Your task to perform on an android device: Add "macbook pro 13 inch" to the cart on newegg, then select checkout. Image 0: 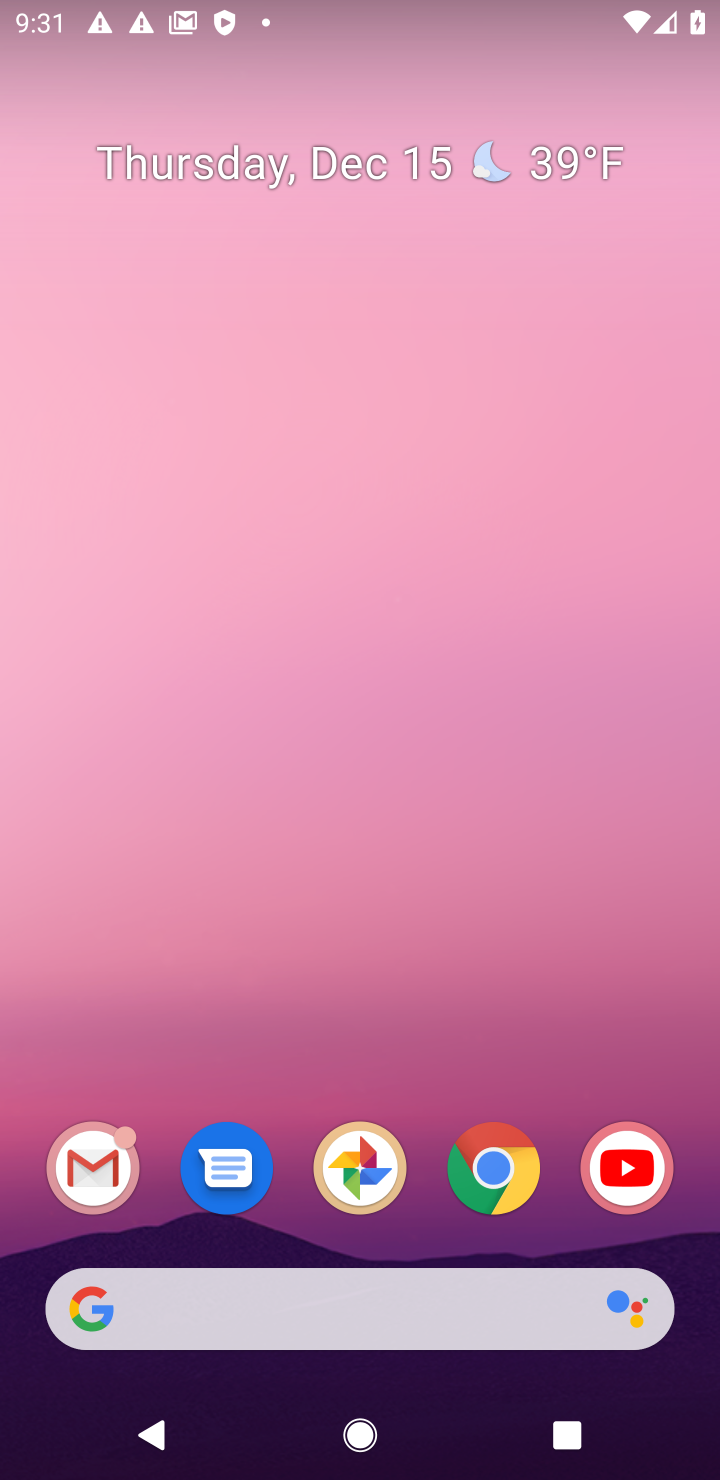
Step 0: click (539, 1166)
Your task to perform on an android device: Add "macbook pro 13 inch" to the cart on newegg, then select checkout. Image 1: 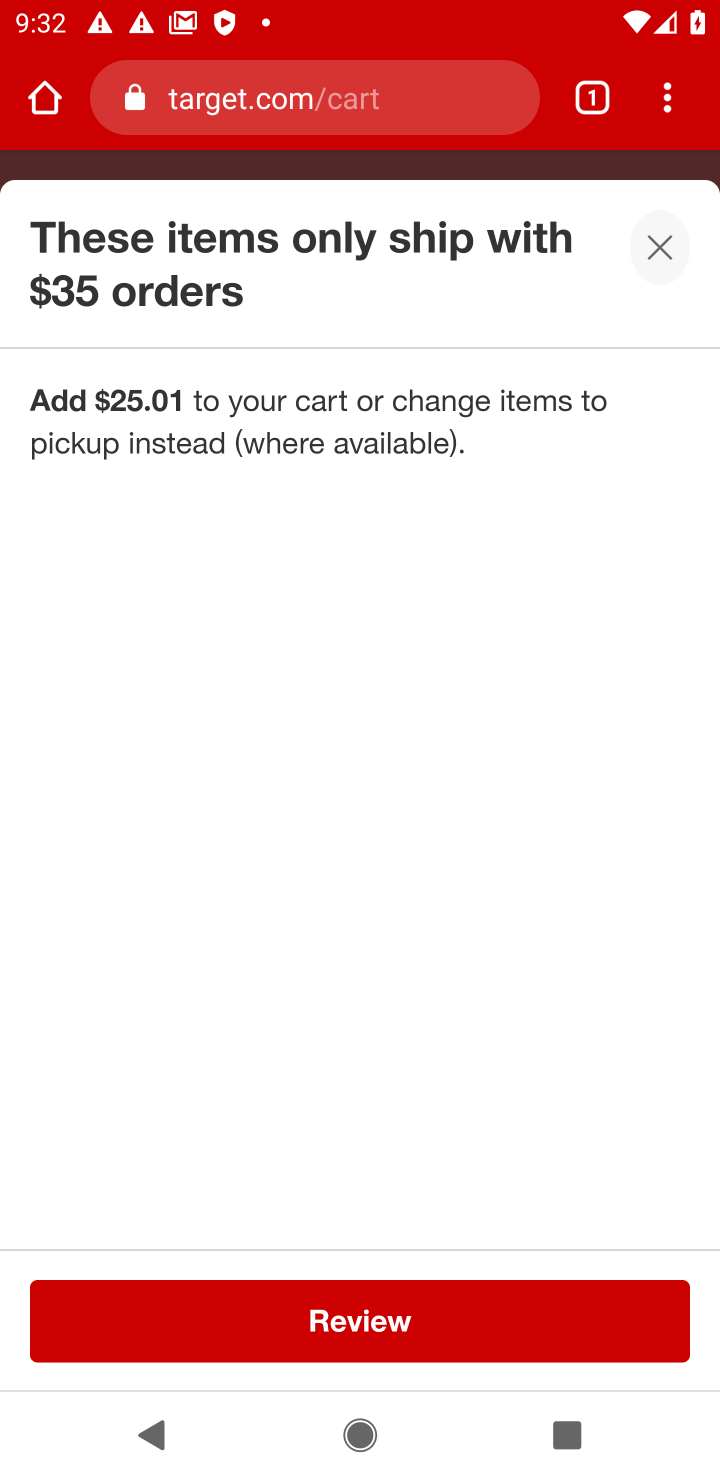
Step 1: click (377, 114)
Your task to perform on an android device: Add "macbook pro 13 inch" to the cart on newegg, then select checkout. Image 2: 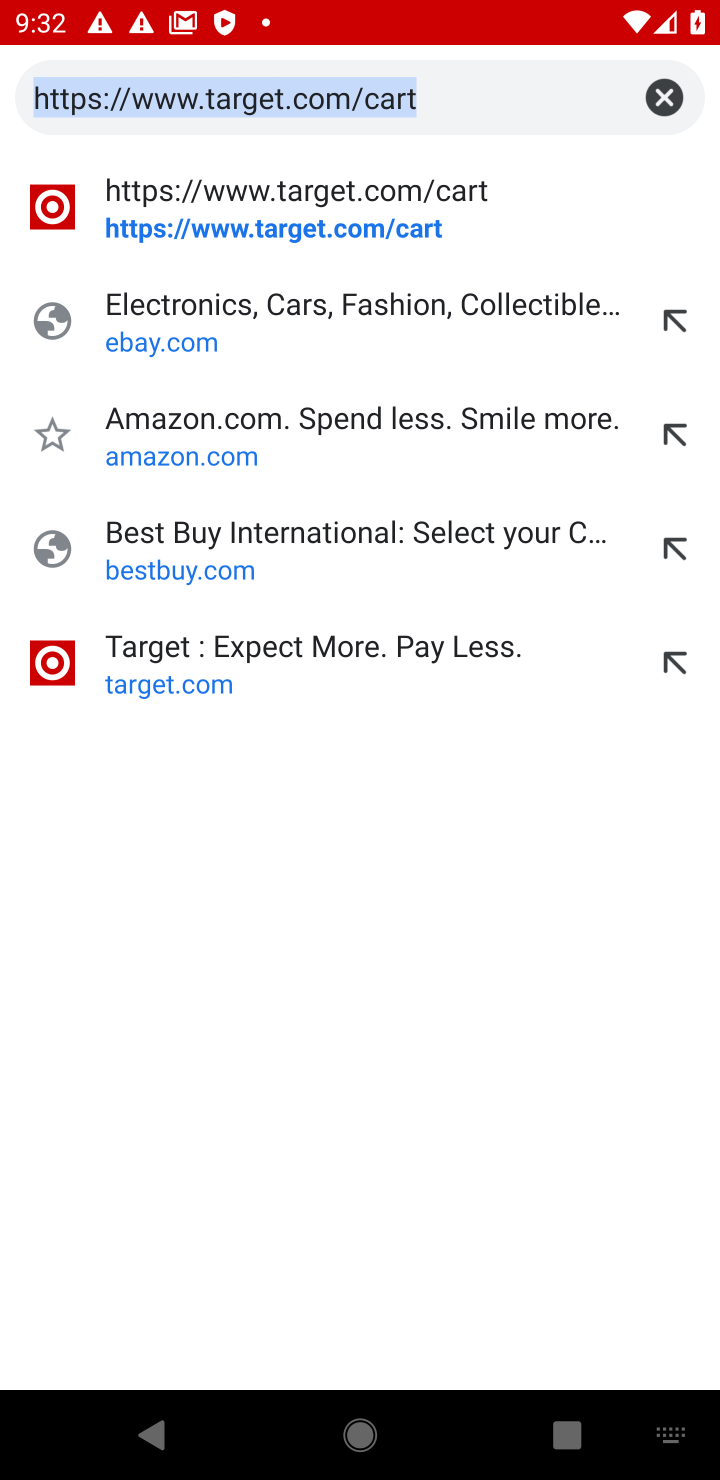
Step 2: click (658, 99)
Your task to perform on an android device: Add "macbook pro 13 inch" to the cart on newegg, then select checkout. Image 3: 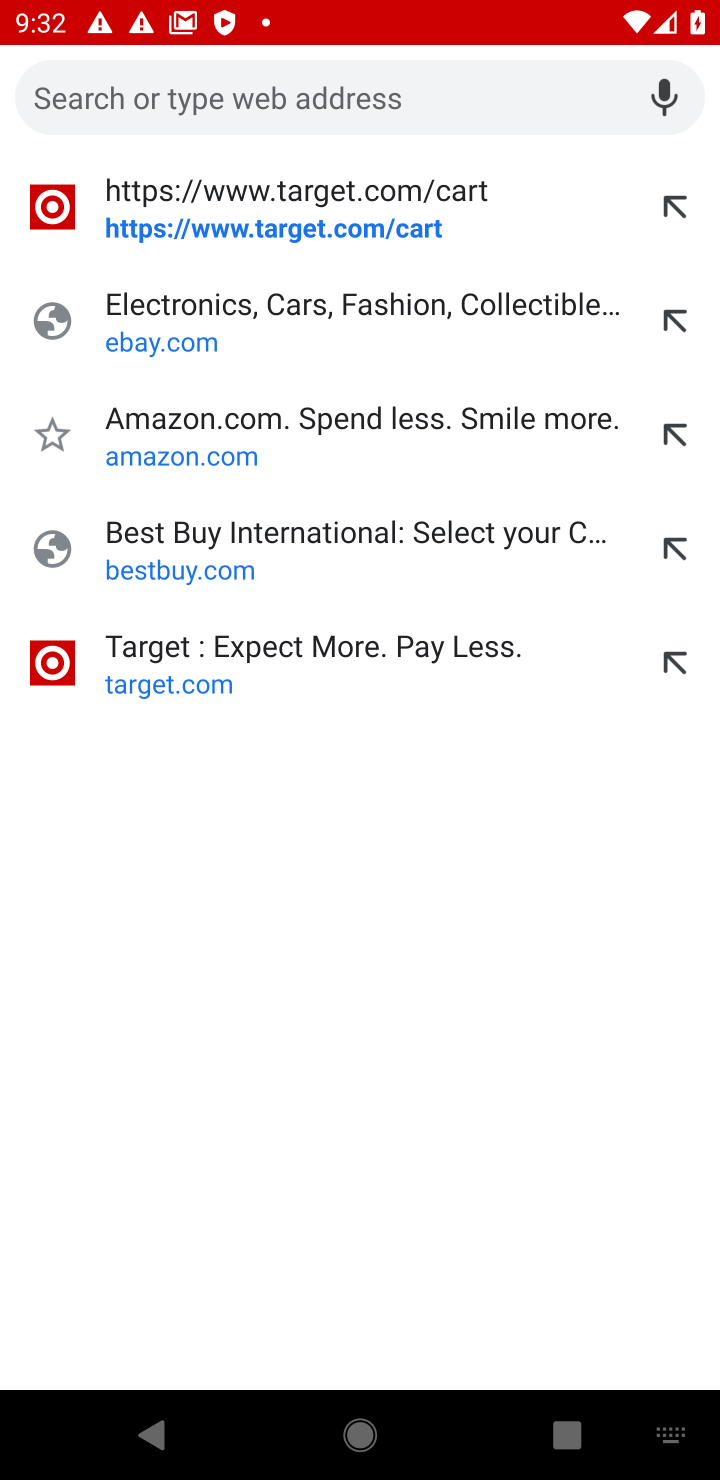
Step 3: type "NEWEGG"
Your task to perform on an android device: Add "macbook pro 13 inch" to the cart on newegg, then select checkout. Image 4: 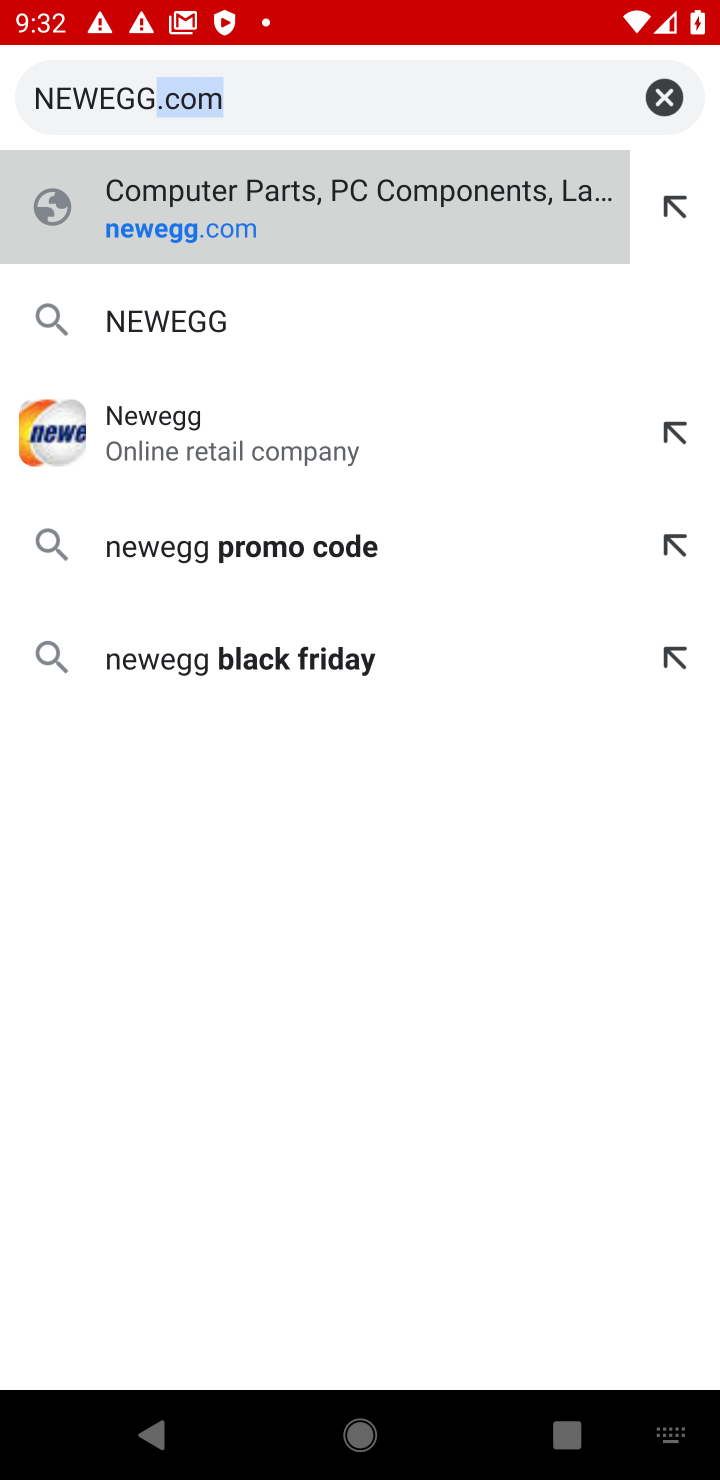
Step 4: click (292, 199)
Your task to perform on an android device: Add "macbook pro 13 inch" to the cart on newegg, then select checkout. Image 5: 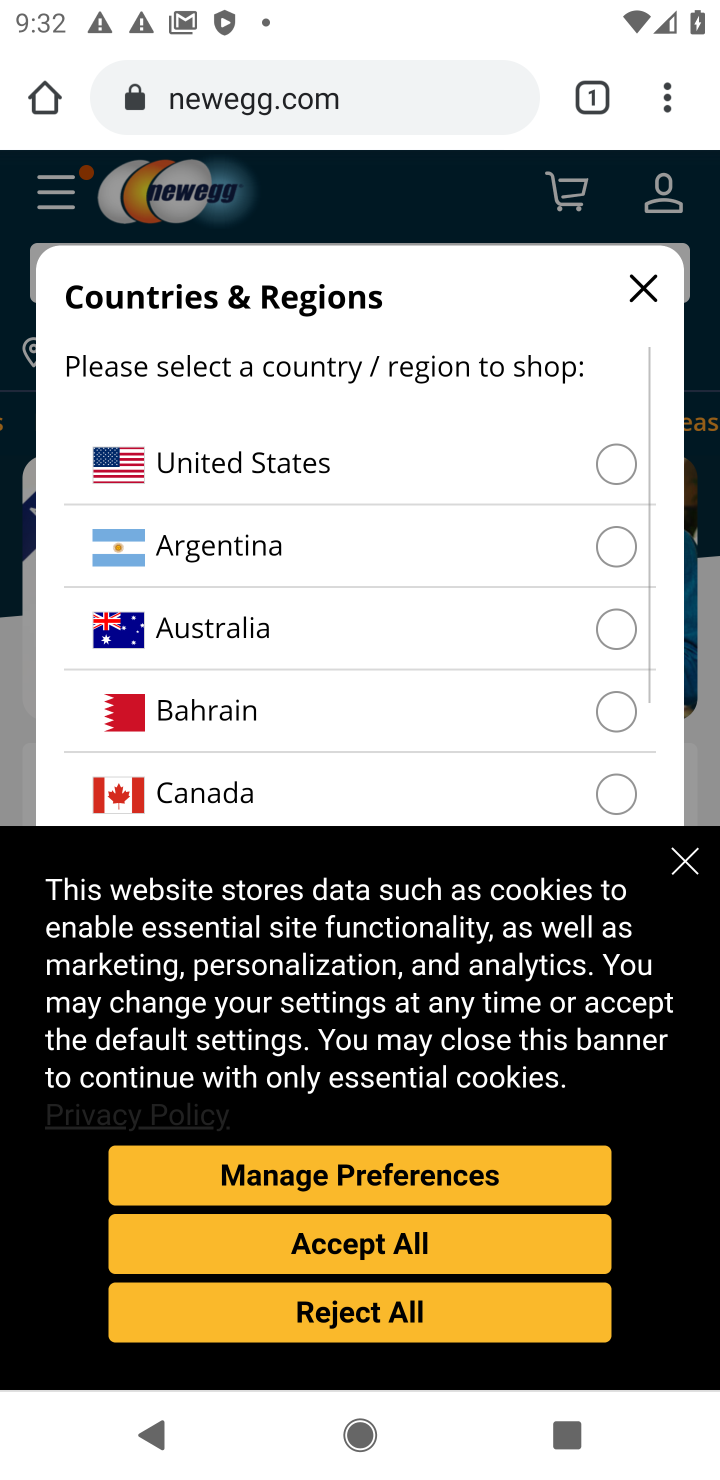
Step 5: click (684, 875)
Your task to perform on an android device: Add "macbook pro 13 inch" to the cart on newegg, then select checkout. Image 6: 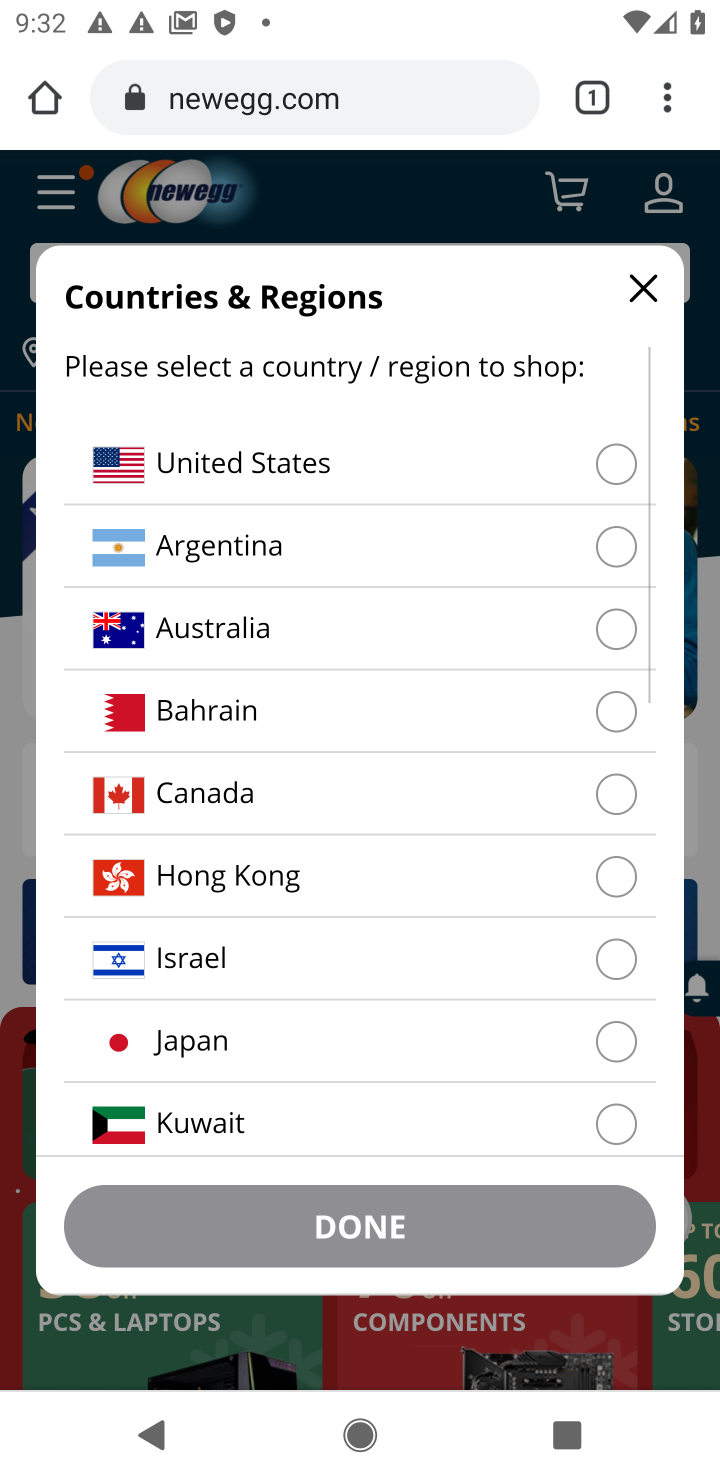
Step 6: click (483, 452)
Your task to perform on an android device: Add "macbook pro 13 inch" to the cart on newegg, then select checkout. Image 7: 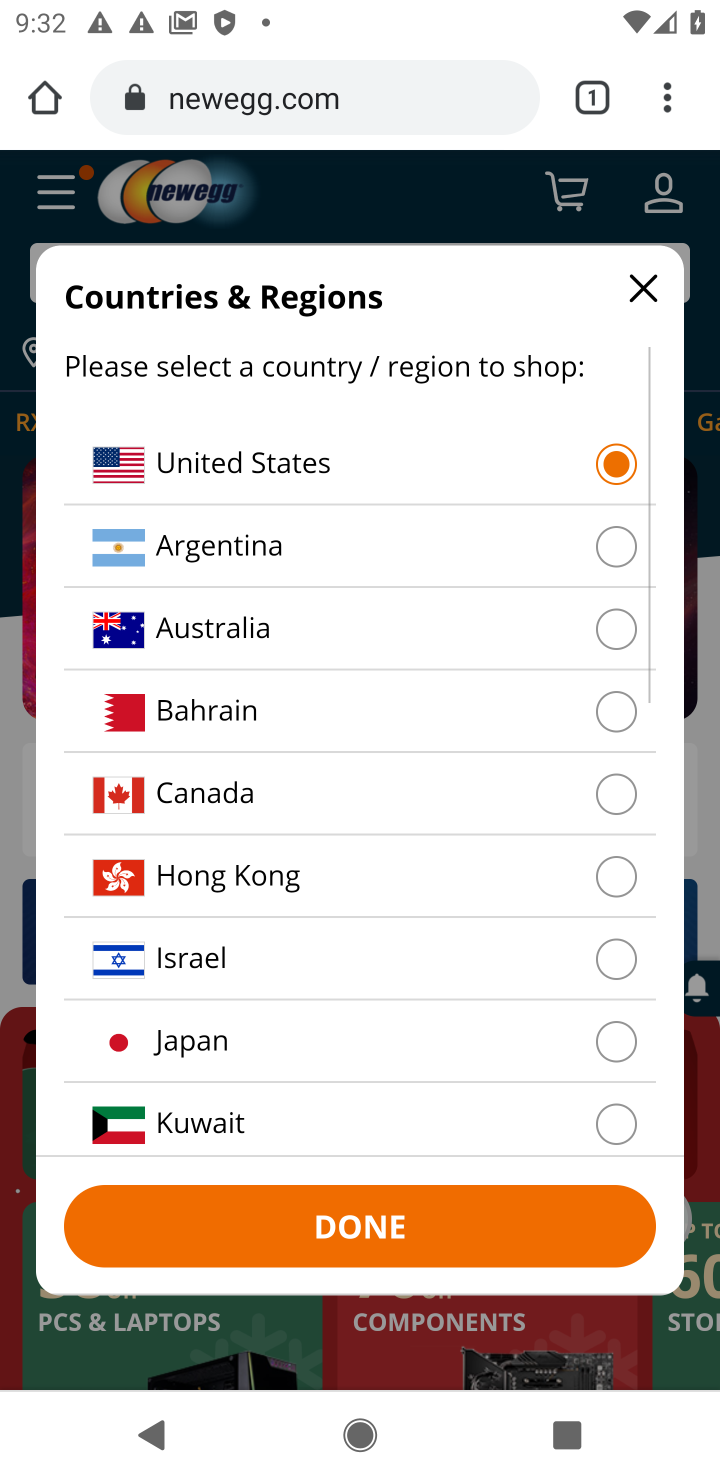
Step 7: click (403, 1217)
Your task to perform on an android device: Add "macbook pro 13 inch" to the cart on newegg, then select checkout. Image 8: 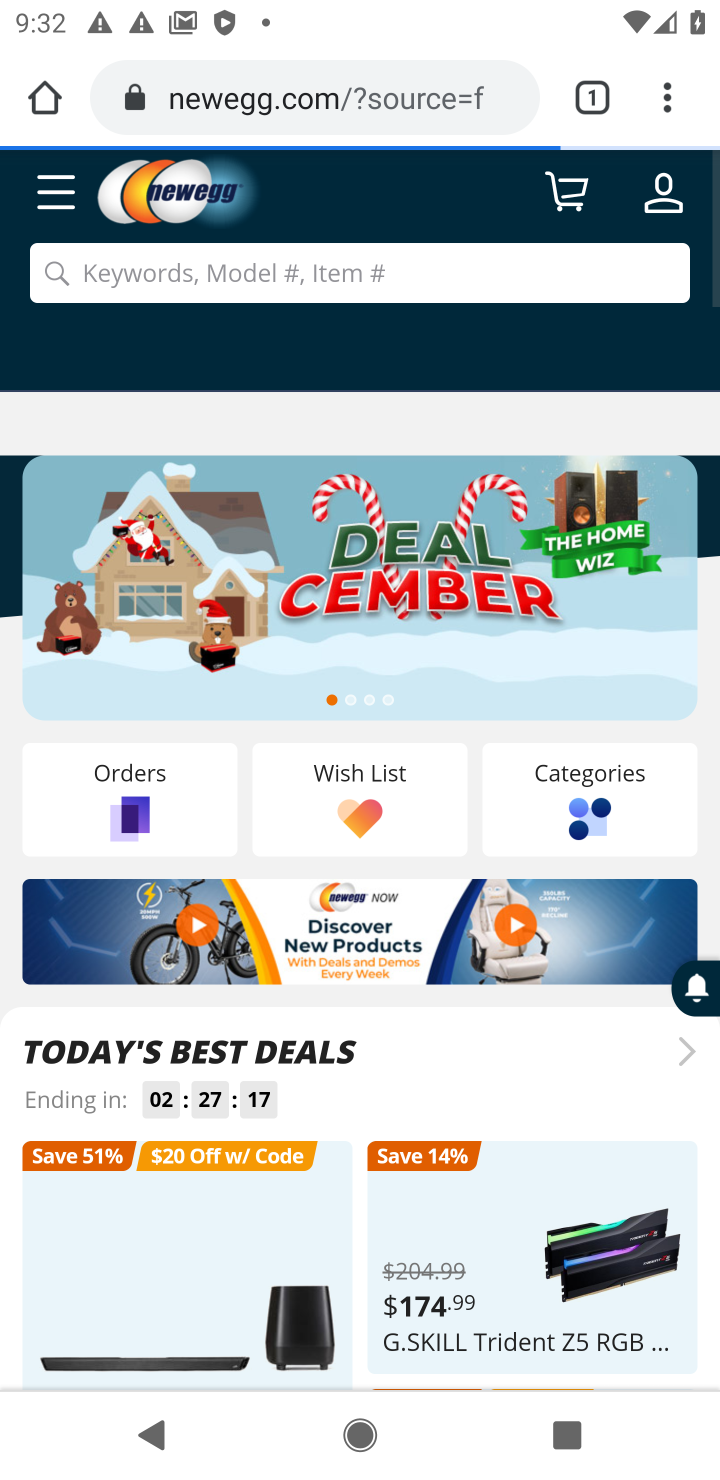
Step 8: click (464, 275)
Your task to perform on an android device: Add "macbook pro 13 inch" to the cart on newegg, then select checkout. Image 9: 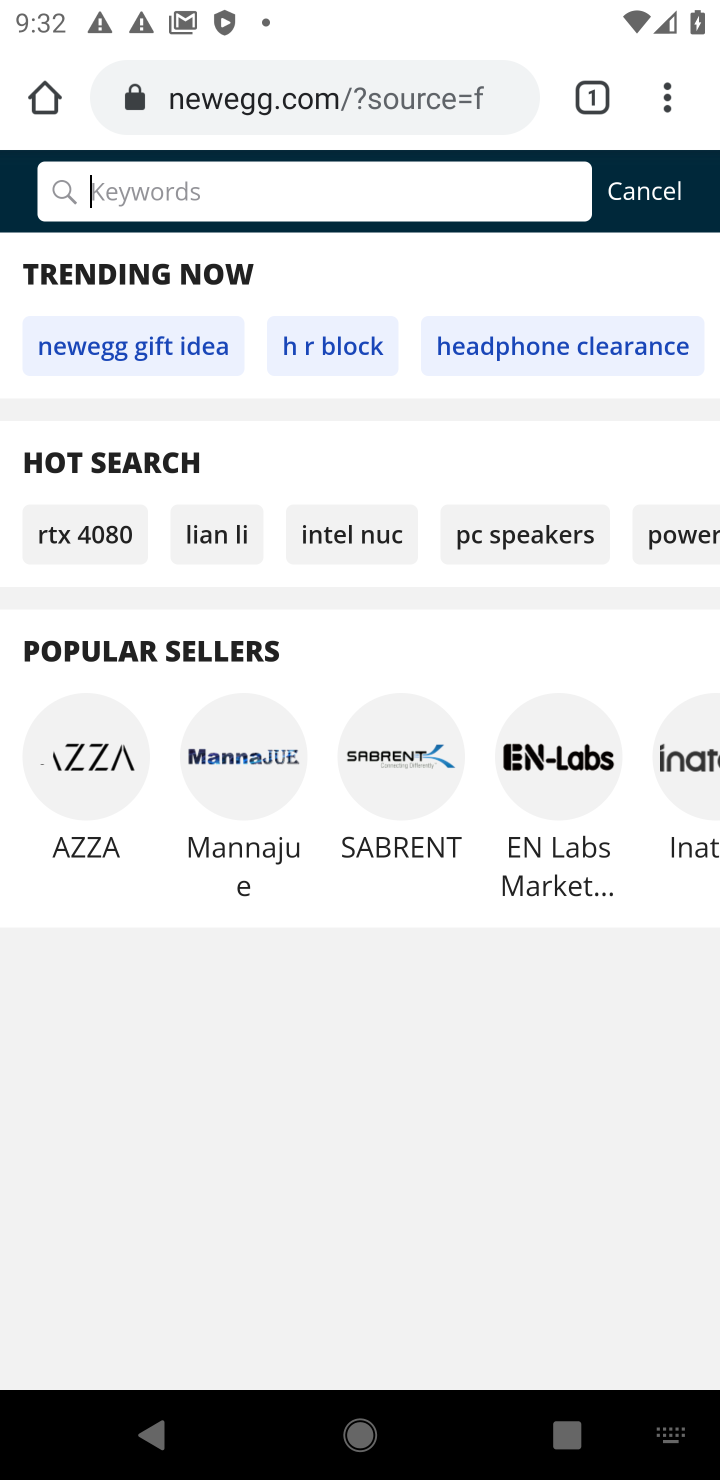
Step 9: type "macbook pro 13 inch"
Your task to perform on an android device: Add "macbook pro 13 inch" to the cart on newegg, then select checkout. Image 10: 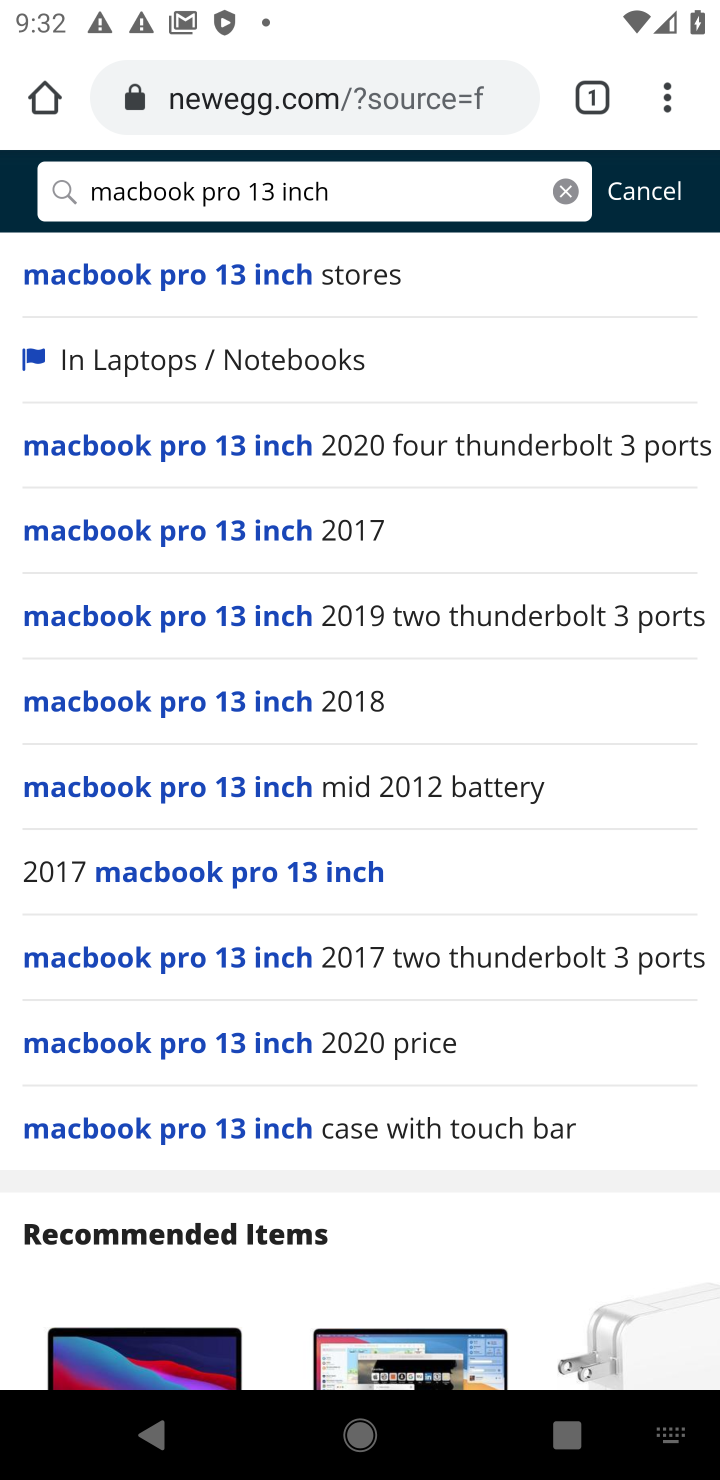
Step 10: click (295, 295)
Your task to perform on an android device: Add "macbook pro 13 inch" to the cart on newegg, then select checkout. Image 11: 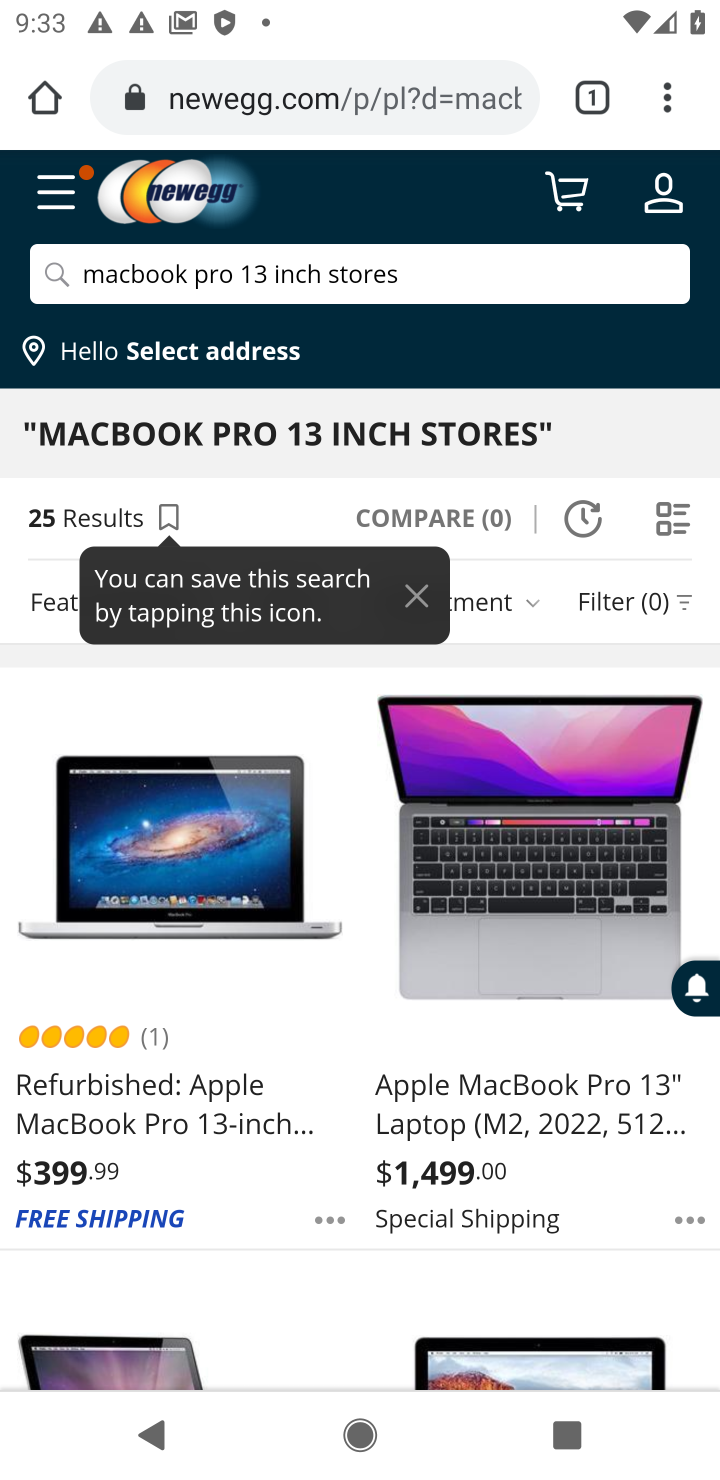
Step 11: click (286, 930)
Your task to perform on an android device: Add "macbook pro 13 inch" to the cart on newegg, then select checkout. Image 12: 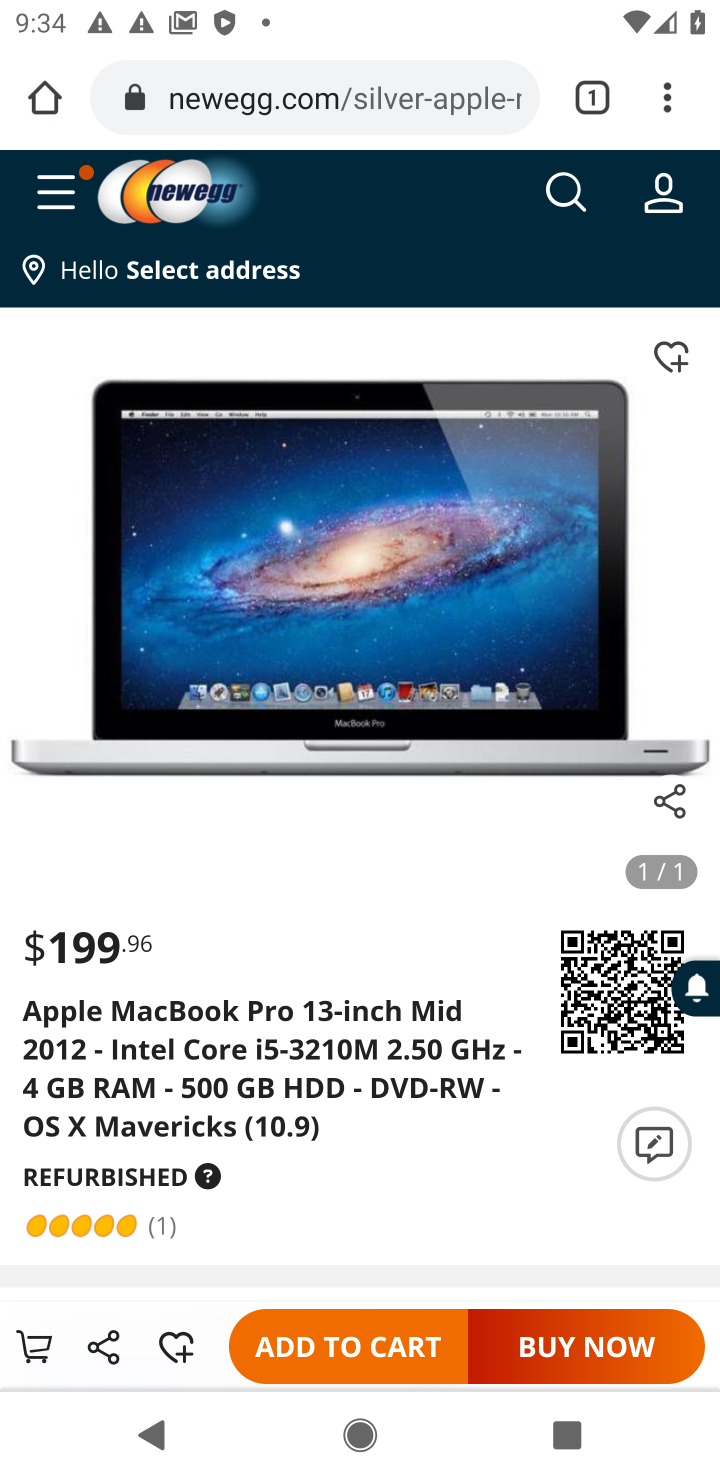
Step 12: click (346, 1347)
Your task to perform on an android device: Add "macbook pro 13 inch" to the cart on newegg, then select checkout. Image 13: 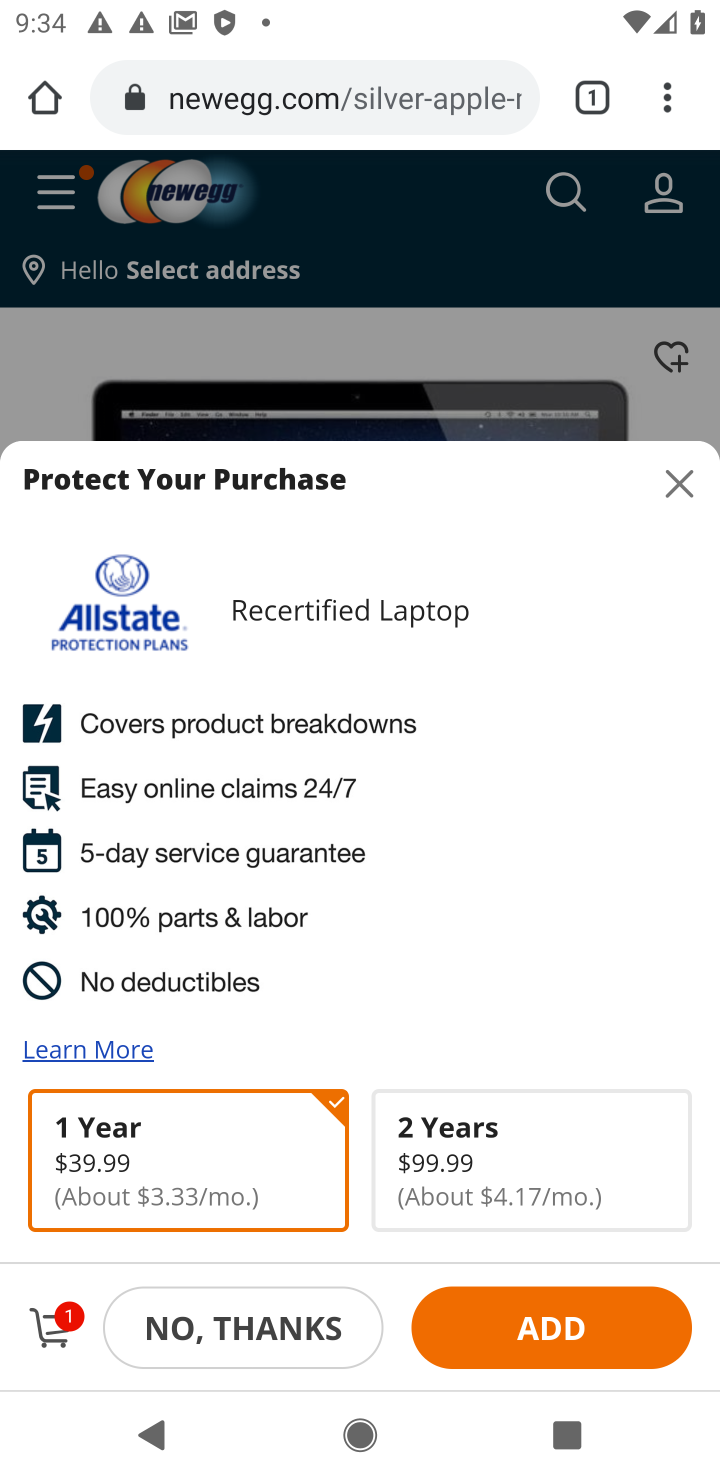
Step 13: click (681, 484)
Your task to perform on an android device: Add "macbook pro 13 inch" to the cart on newegg, then select checkout. Image 14: 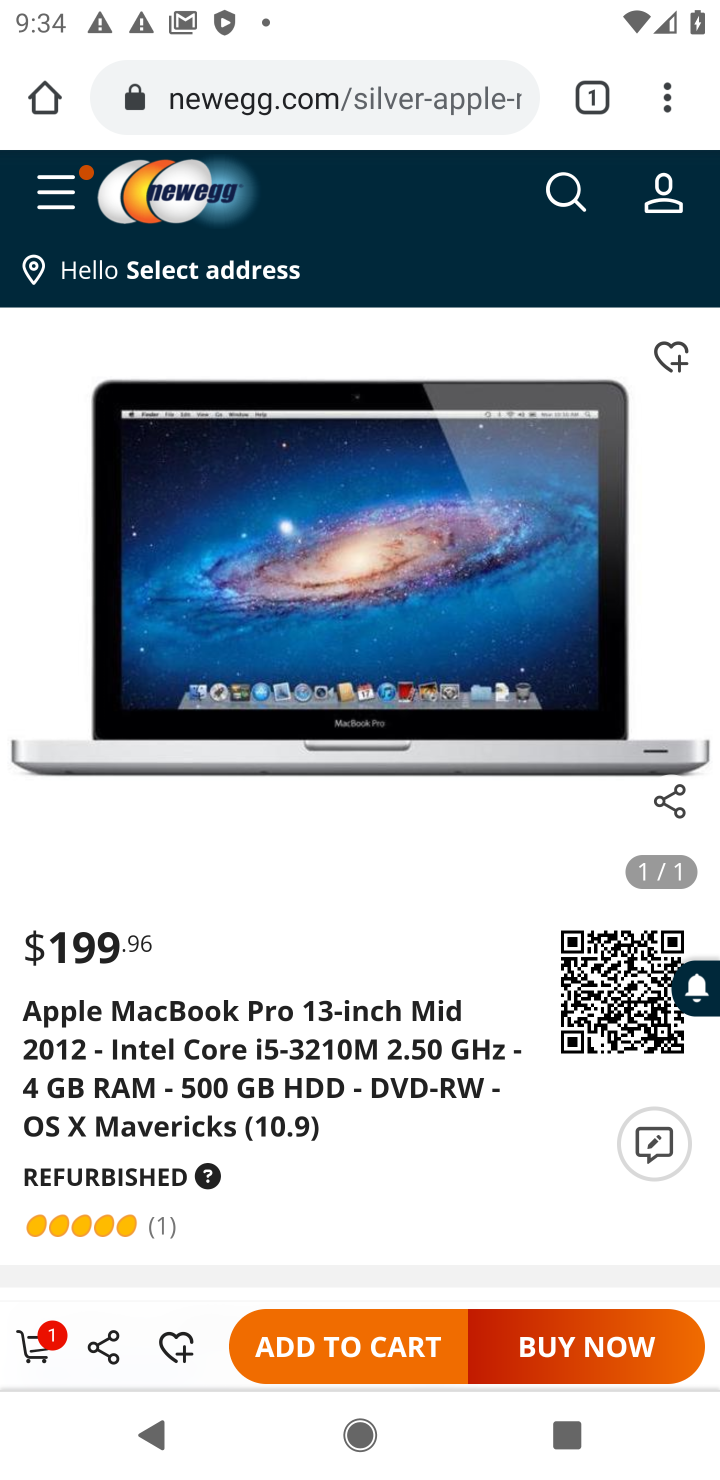
Step 14: click (250, 1342)
Your task to perform on an android device: Add "macbook pro 13 inch" to the cart on newegg, then select checkout. Image 15: 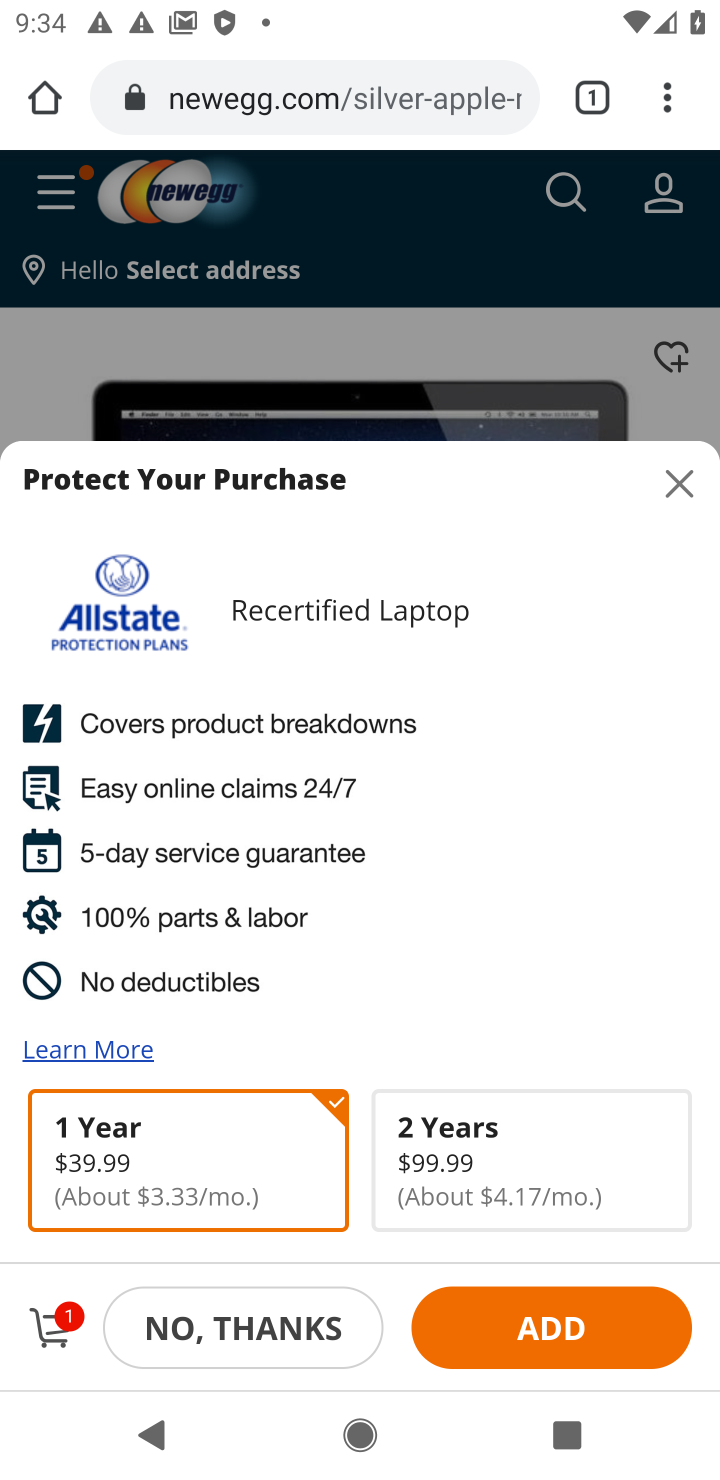
Step 15: click (60, 1318)
Your task to perform on an android device: Add "macbook pro 13 inch" to the cart on newegg, then select checkout. Image 16: 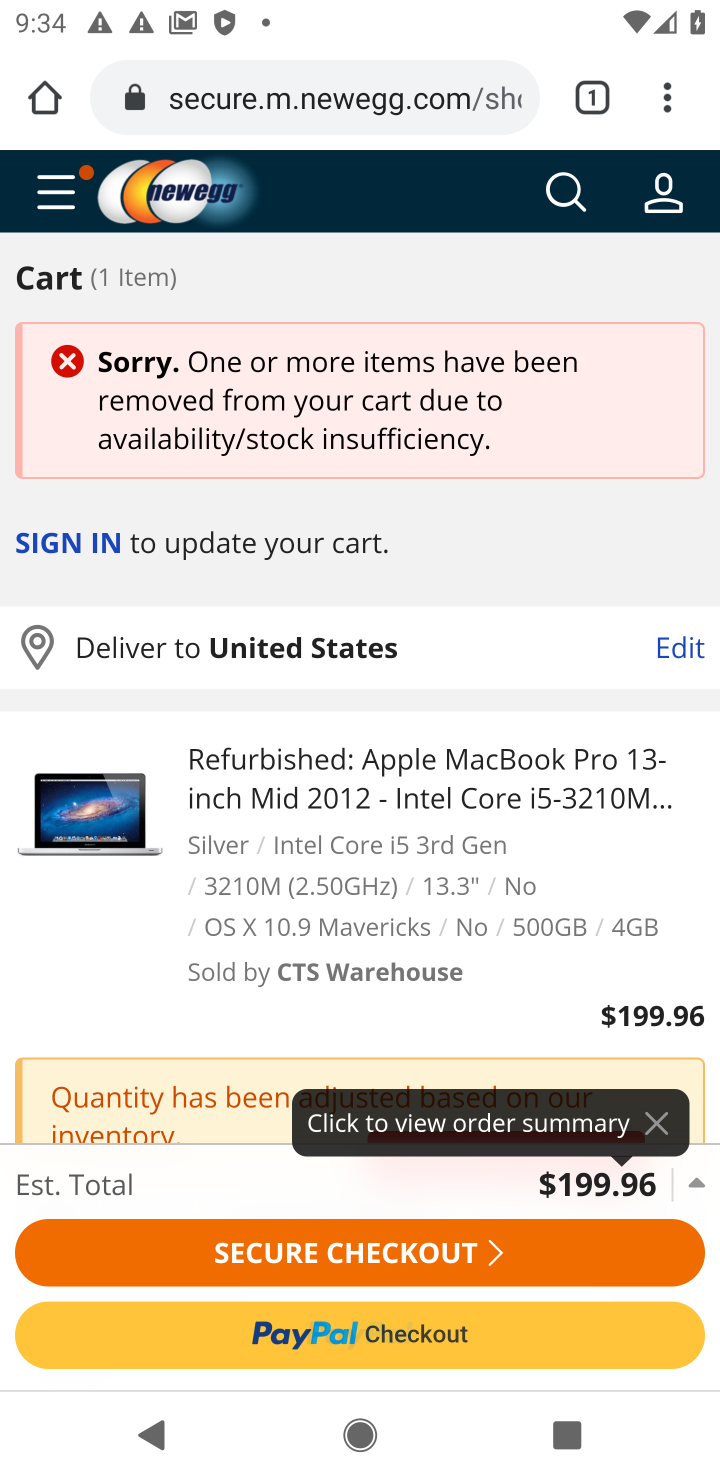
Step 16: click (390, 1259)
Your task to perform on an android device: Add "macbook pro 13 inch" to the cart on newegg, then select checkout. Image 17: 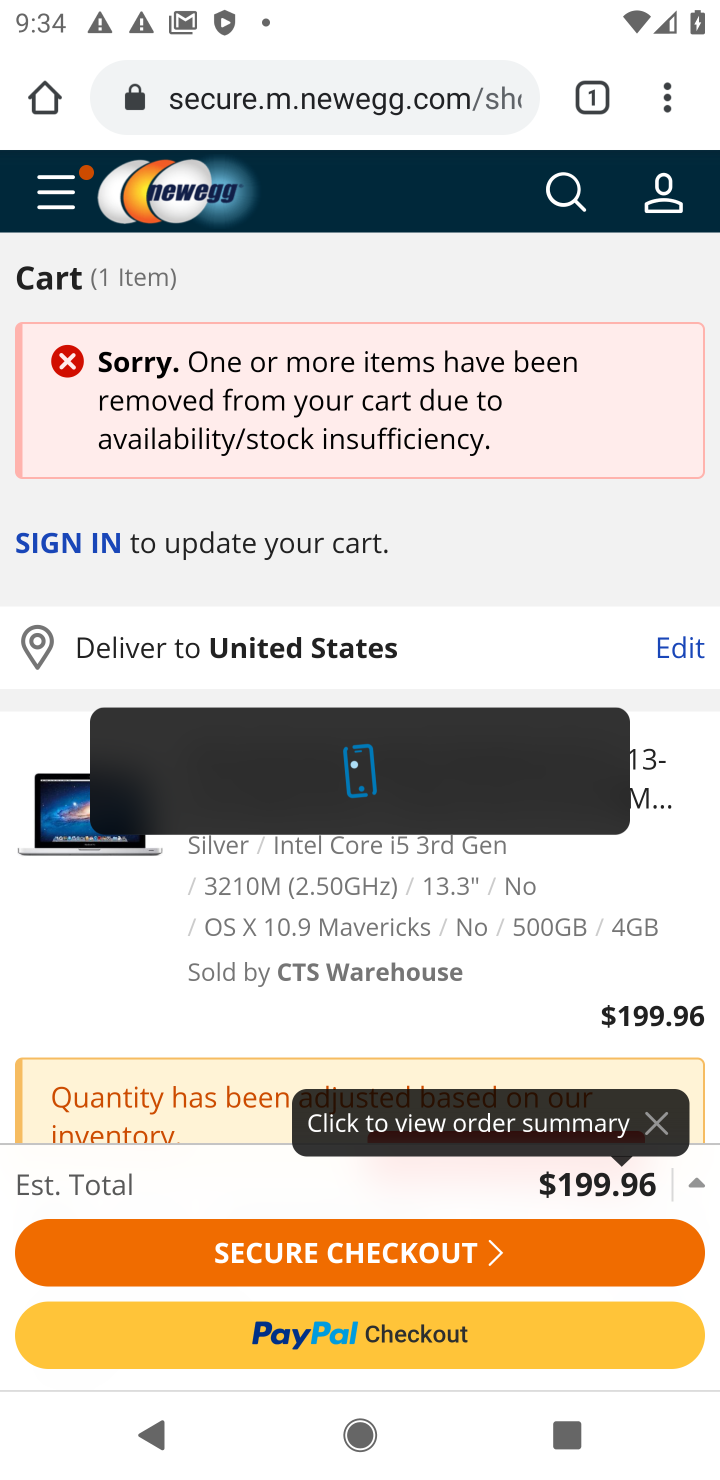
Step 17: task complete